Your task to perform on an android device: Add "beats solo 3" to the cart on costco.com, then select checkout. Image 0: 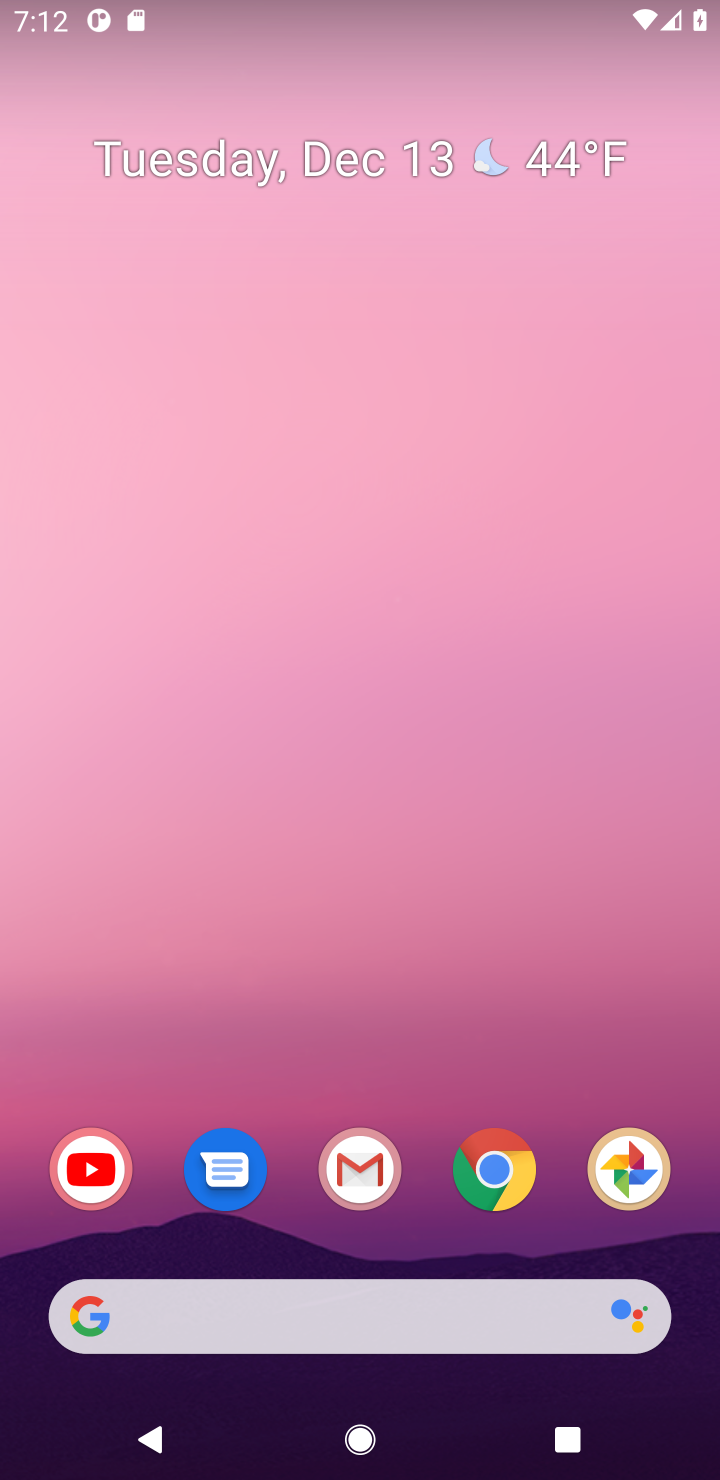
Step 0: click (521, 1193)
Your task to perform on an android device: Add "beats solo 3" to the cart on costco.com, then select checkout. Image 1: 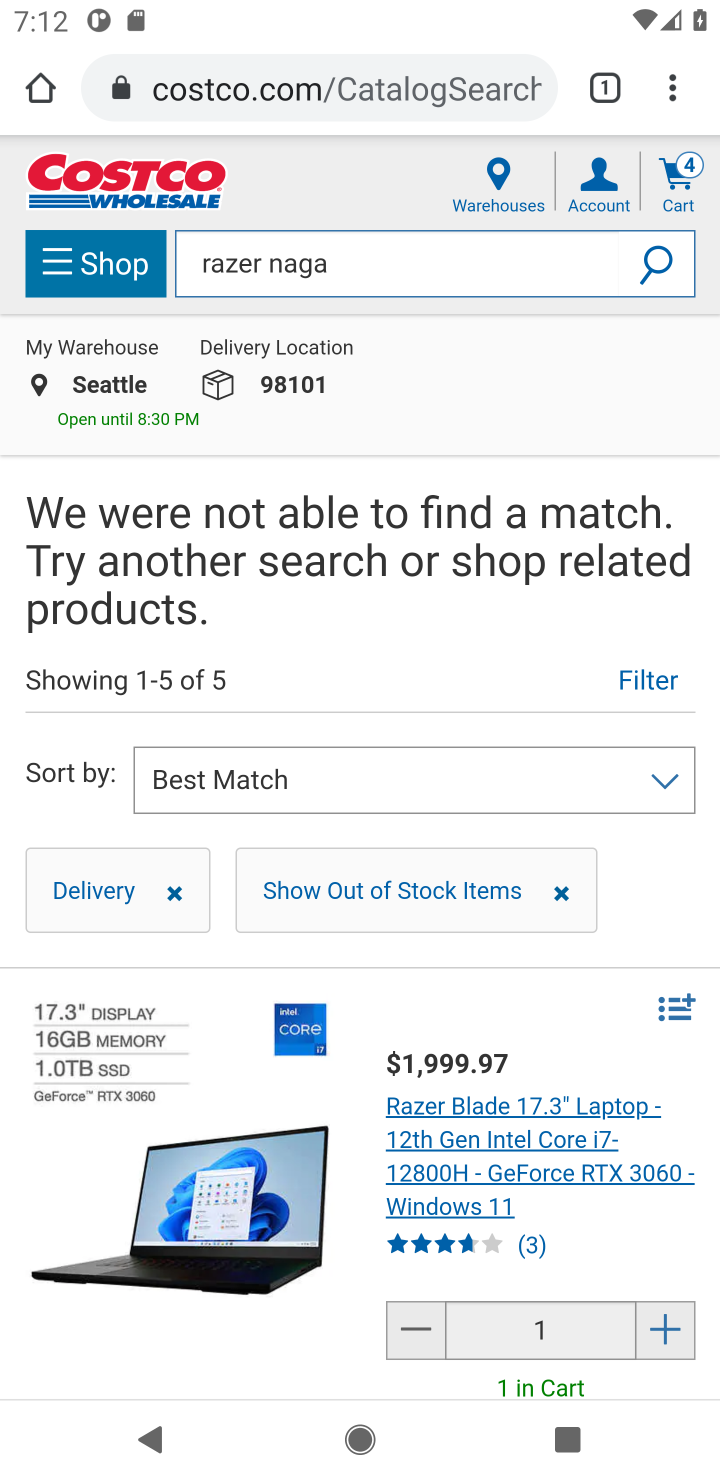
Step 1: click (322, 102)
Your task to perform on an android device: Add "beats solo 3" to the cart on costco.com, then select checkout. Image 2: 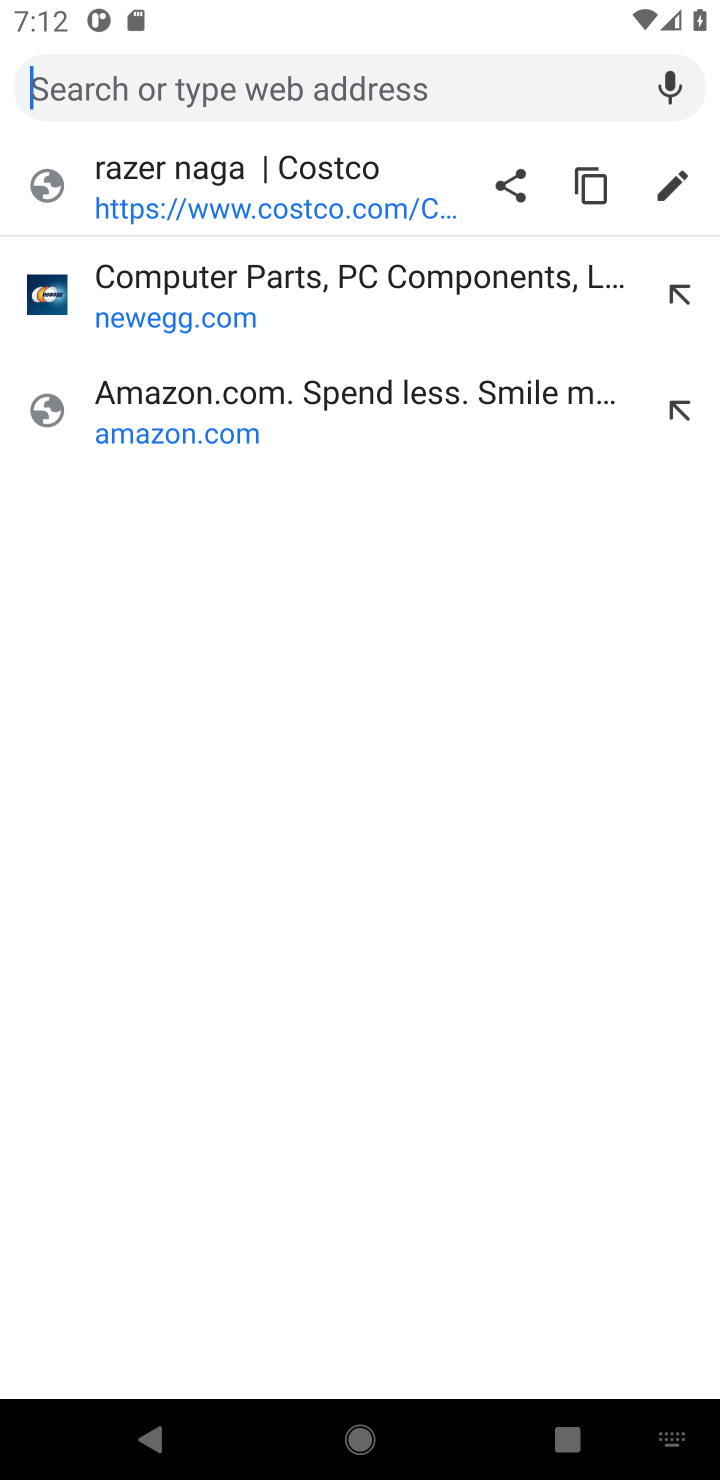
Step 2: press back button
Your task to perform on an android device: Add "beats solo 3" to the cart on costco.com, then select checkout. Image 3: 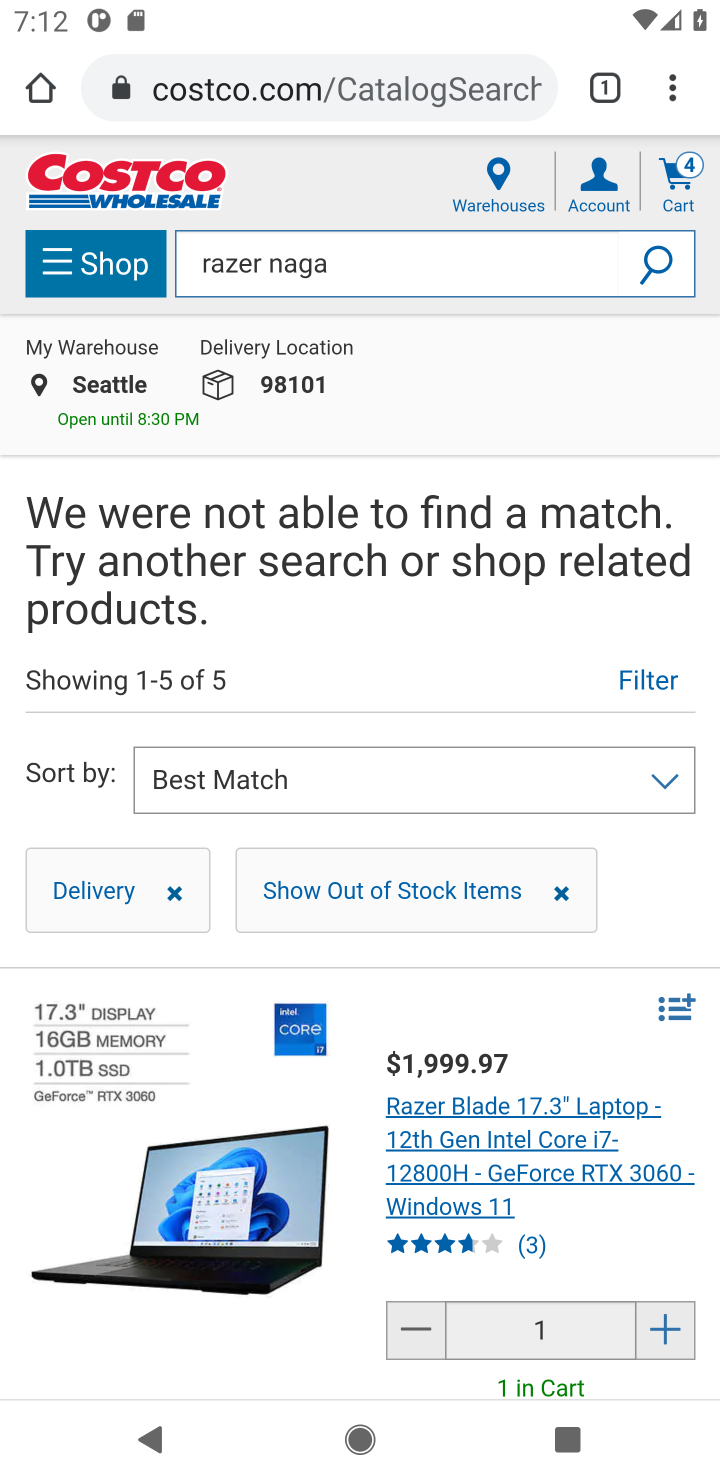
Step 3: click (408, 256)
Your task to perform on an android device: Add "beats solo 3" to the cart on costco.com, then select checkout. Image 4: 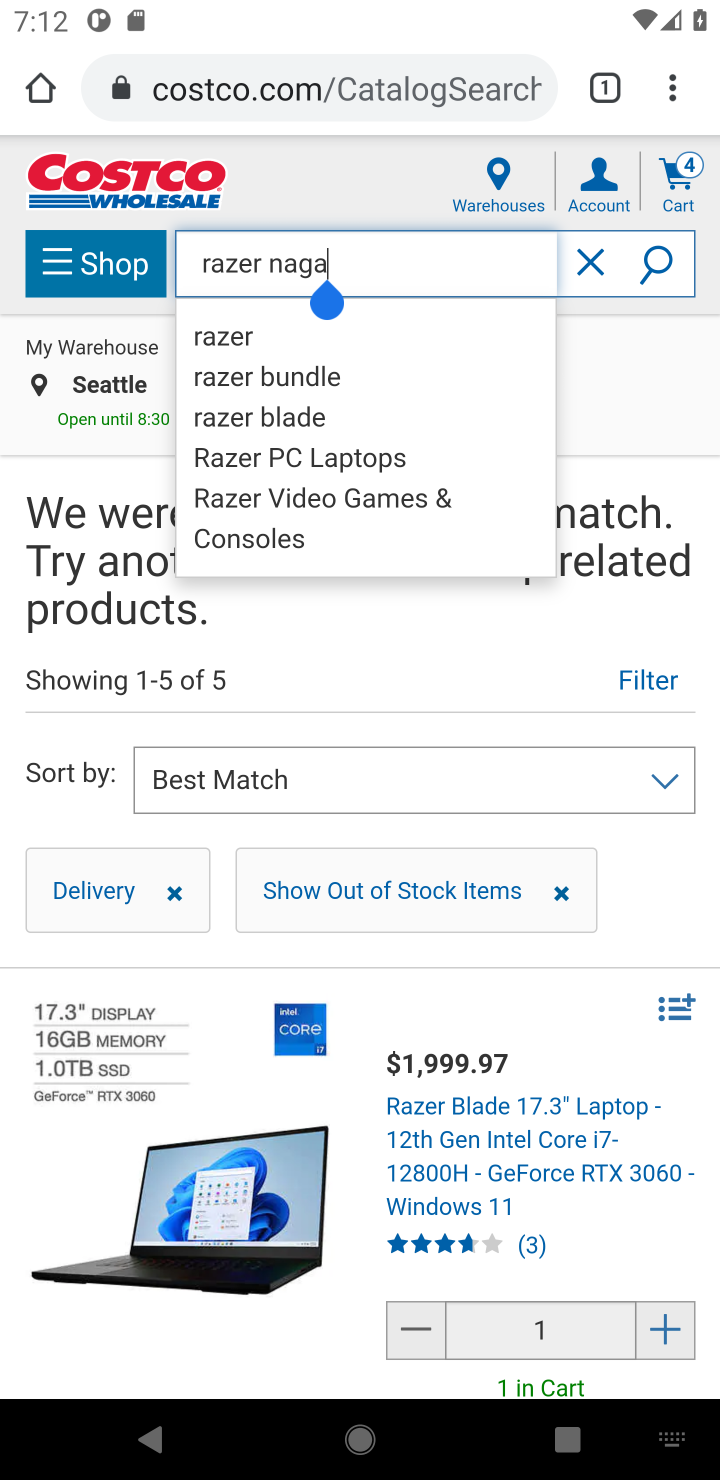
Step 4: click (585, 270)
Your task to perform on an android device: Add "beats solo 3" to the cart on costco.com, then select checkout. Image 5: 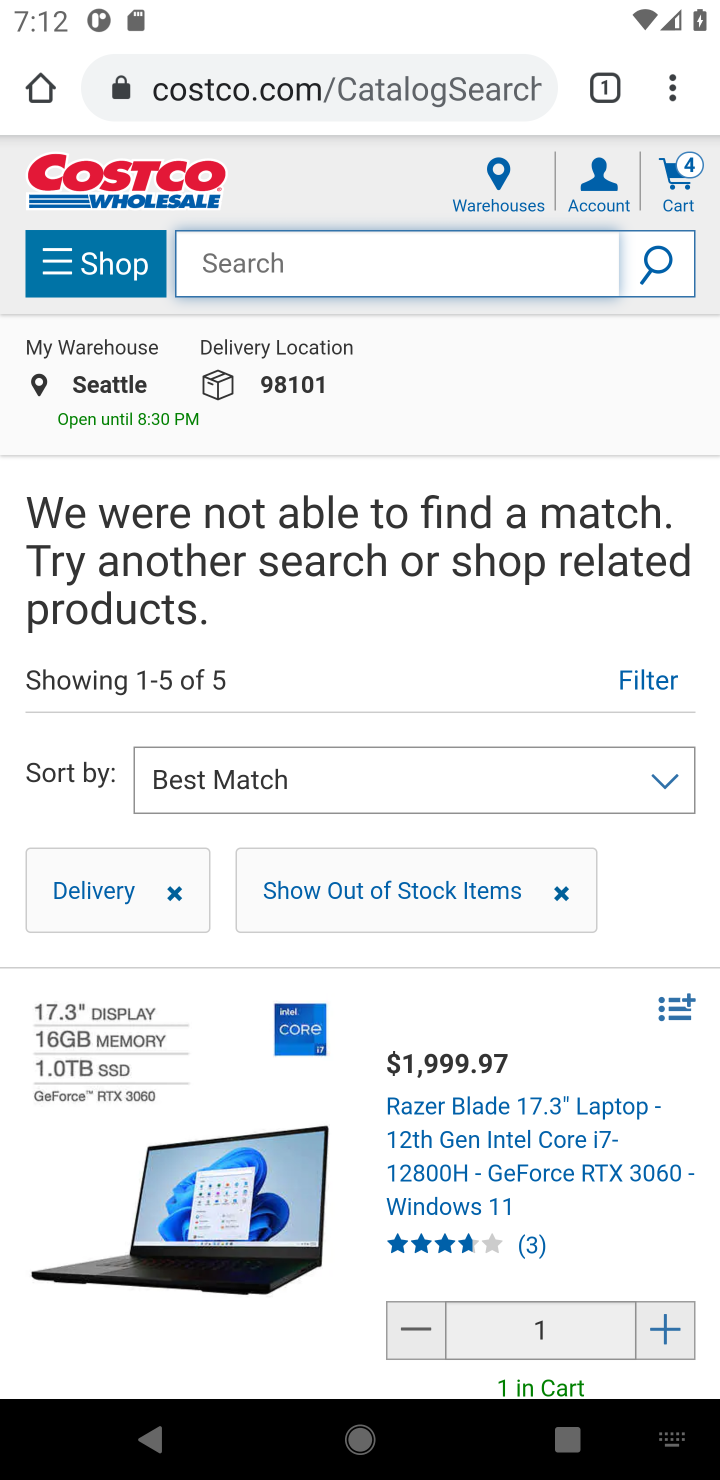
Step 5: type "beats solo 3"
Your task to perform on an android device: Add "beats solo 3" to the cart on costco.com, then select checkout. Image 6: 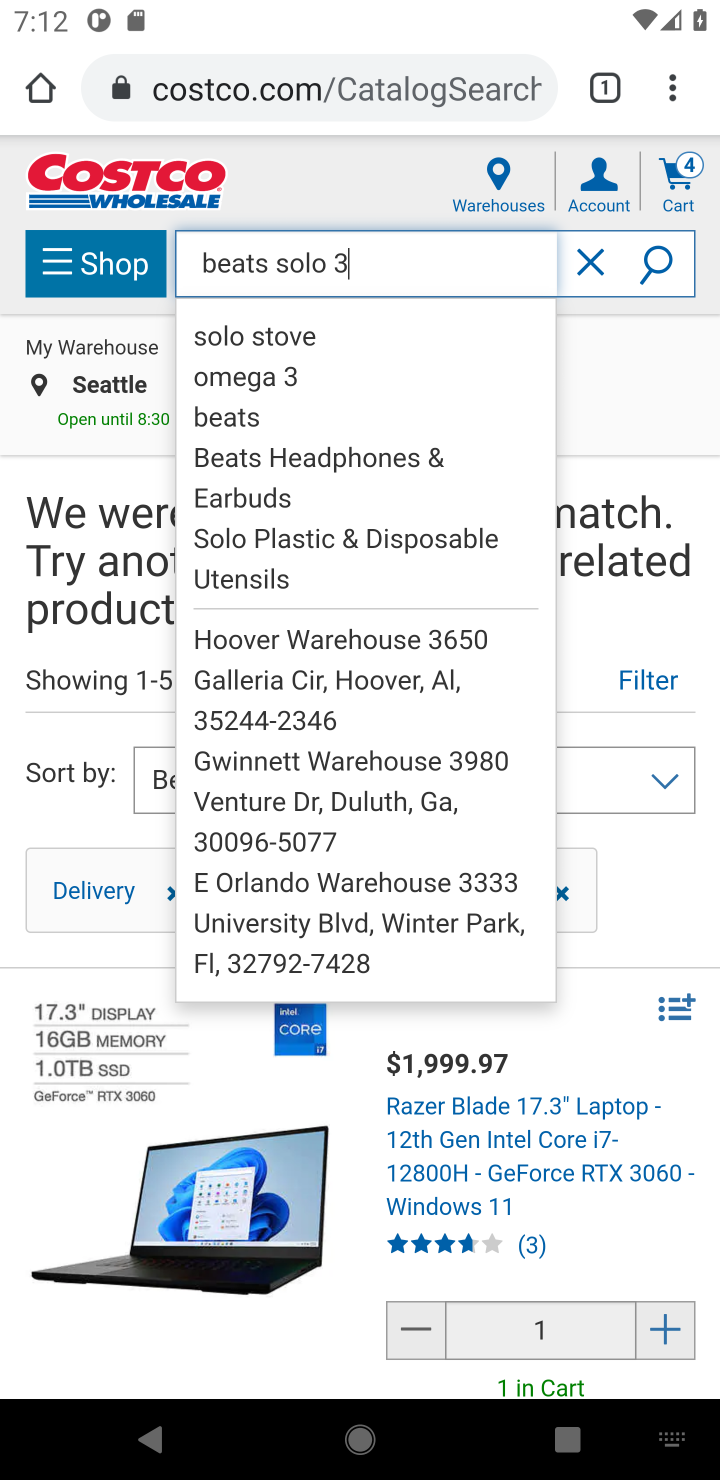
Step 6: click (662, 263)
Your task to perform on an android device: Add "beats solo 3" to the cart on costco.com, then select checkout. Image 7: 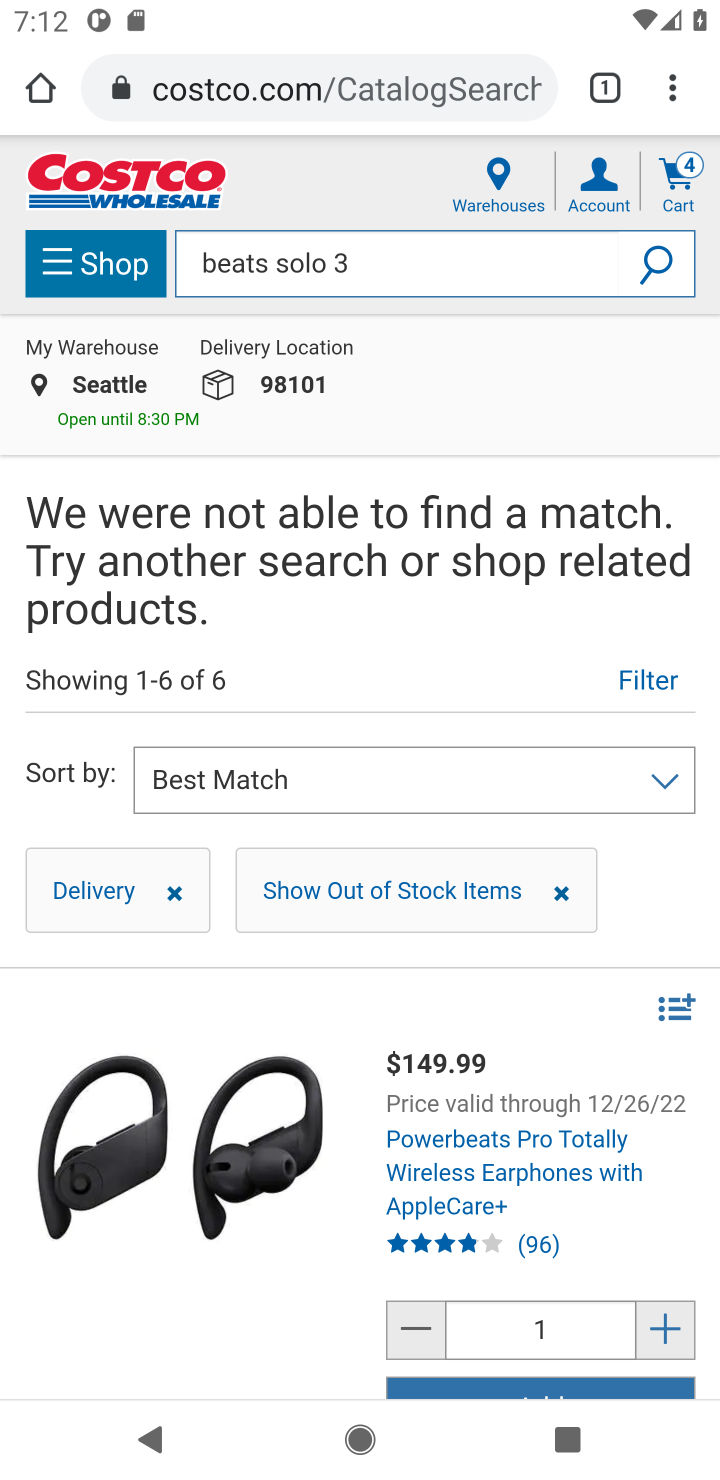
Step 7: click (526, 1376)
Your task to perform on an android device: Add "beats solo 3" to the cart on costco.com, then select checkout. Image 8: 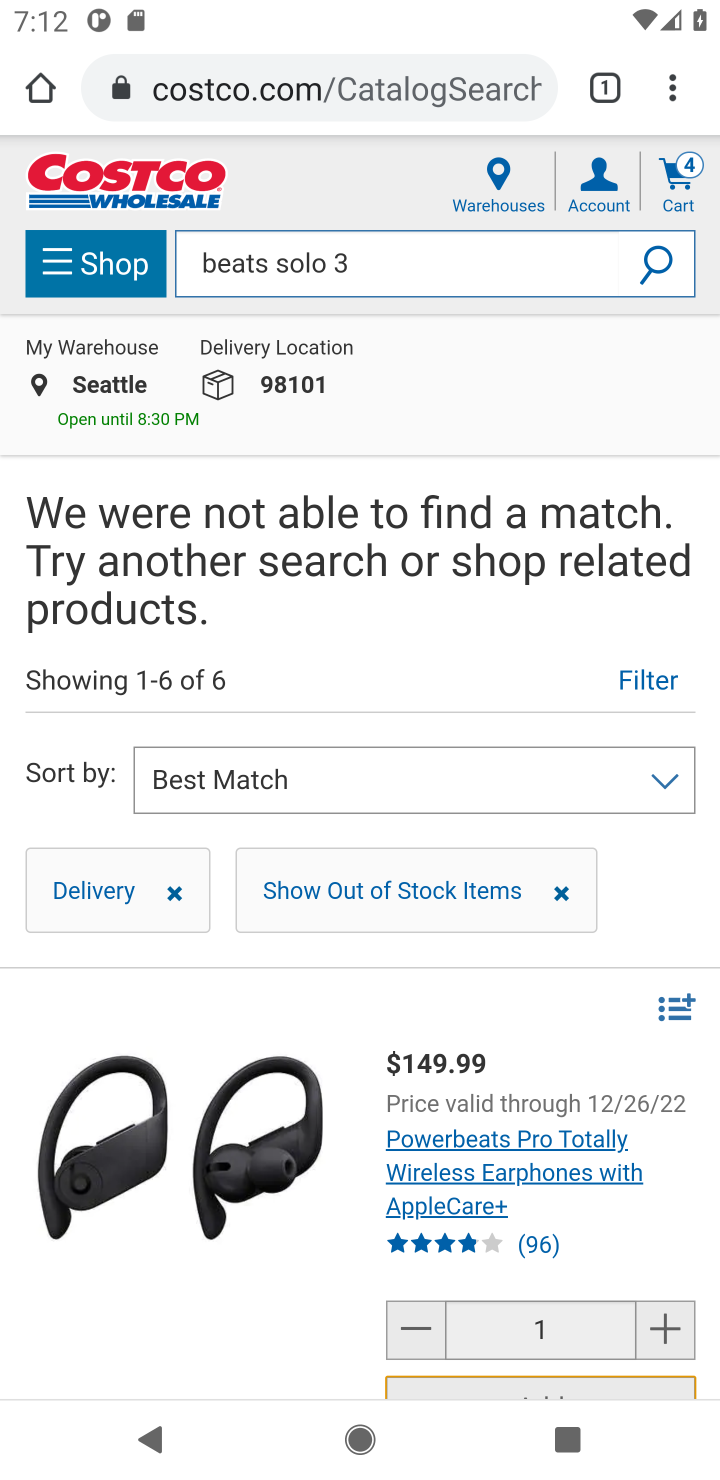
Step 8: task complete